Your task to perform on an android device: find which apps use the phone's location Image 0: 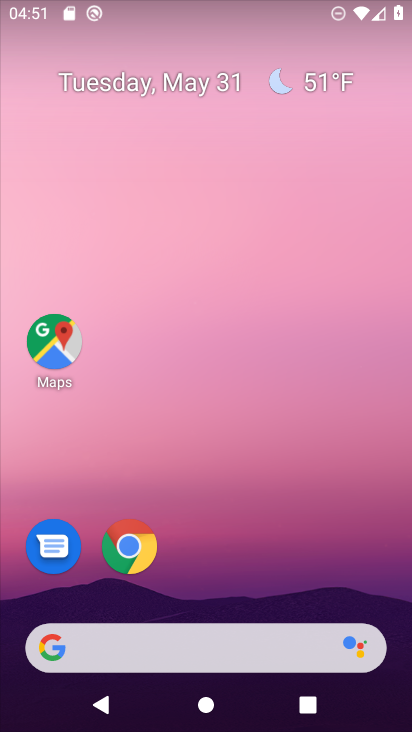
Step 0: drag from (213, 593) to (275, 201)
Your task to perform on an android device: find which apps use the phone's location Image 1: 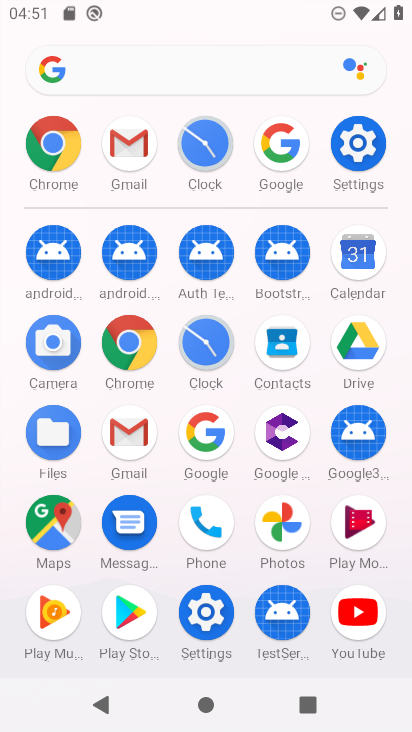
Step 1: click (356, 146)
Your task to perform on an android device: find which apps use the phone's location Image 2: 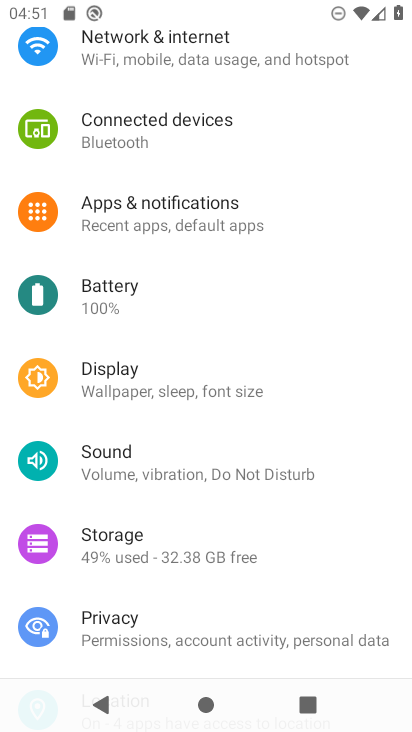
Step 2: drag from (186, 98) to (166, 397)
Your task to perform on an android device: find which apps use the phone's location Image 3: 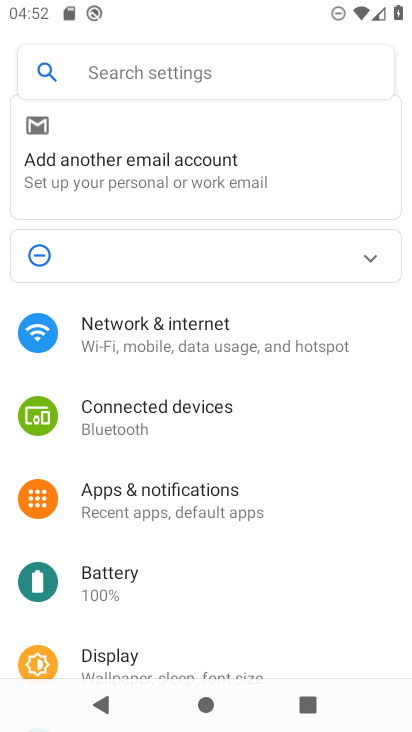
Step 3: drag from (142, 658) to (196, 333)
Your task to perform on an android device: find which apps use the phone's location Image 4: 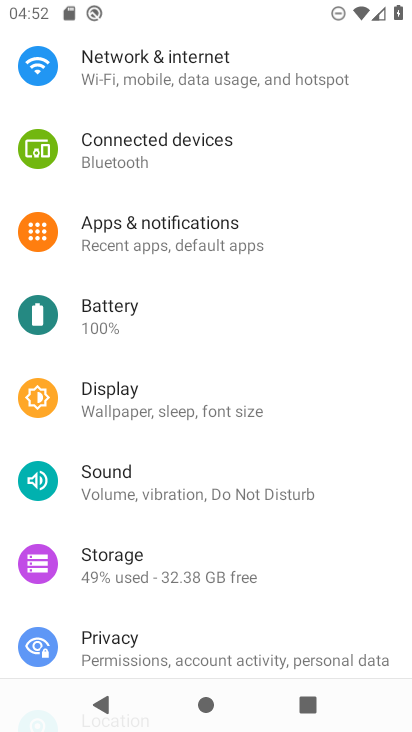
Step 4: drag from (151, 545) to (151, 257)
Your task to perform on an android device: find which apps use the phone's location Image 5: 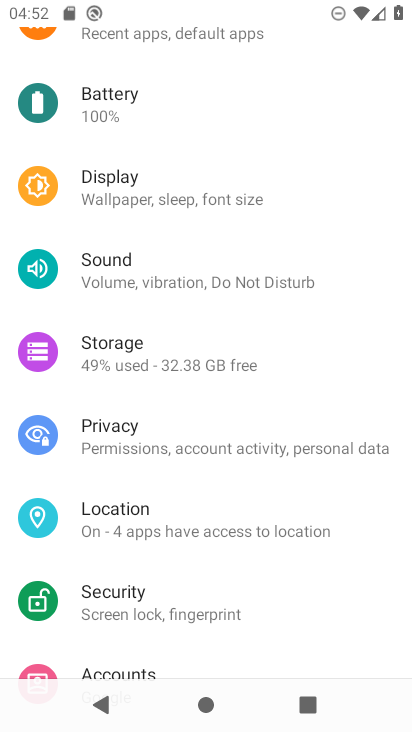
Step 5: click (142, 530)
Your task to perform on an android device: find which apps use the phone's location Image 6: 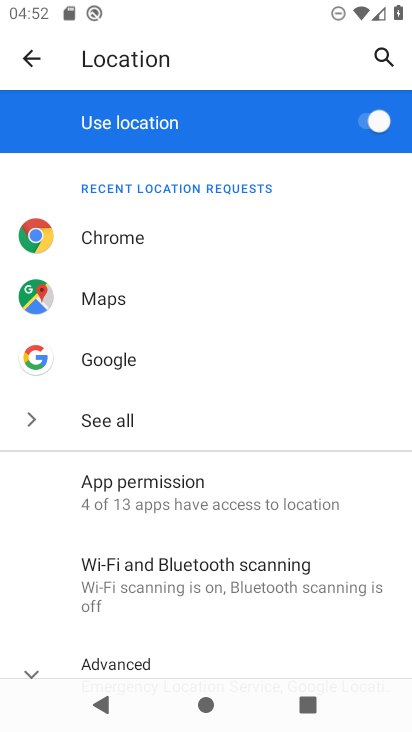
Step 6: click (132, 498)
Your task to perform on an android device: find which apps use the phone's location Image 7: 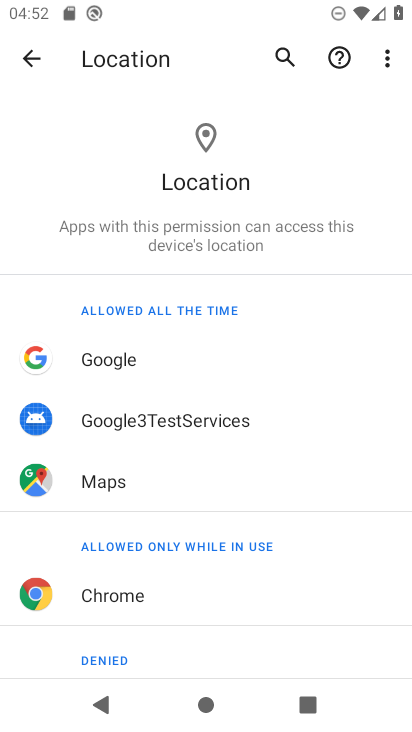
Step 7: task complete